Your task to perform on an android device: Open Yahoo.com Image 0: 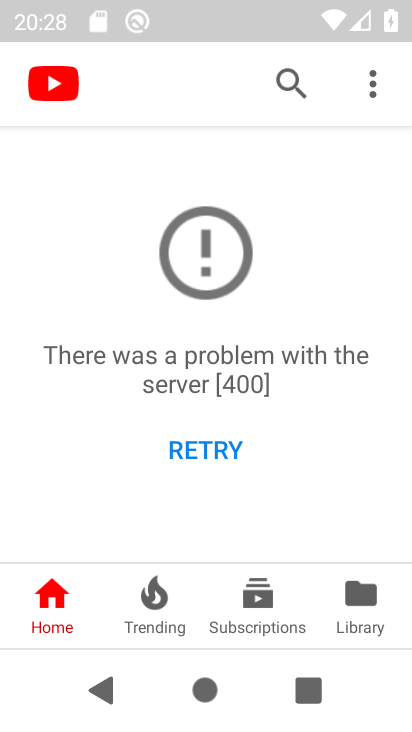
Step 0: press home button
Your task to perform on an android device: Open Yahoo.com Image 1: 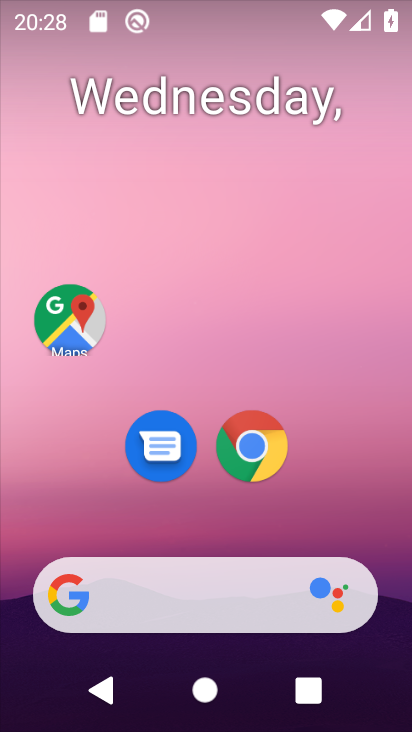
Step 1: click (259, 431)
Your task to perform on an android device: Open Yahoo.com Image 2: 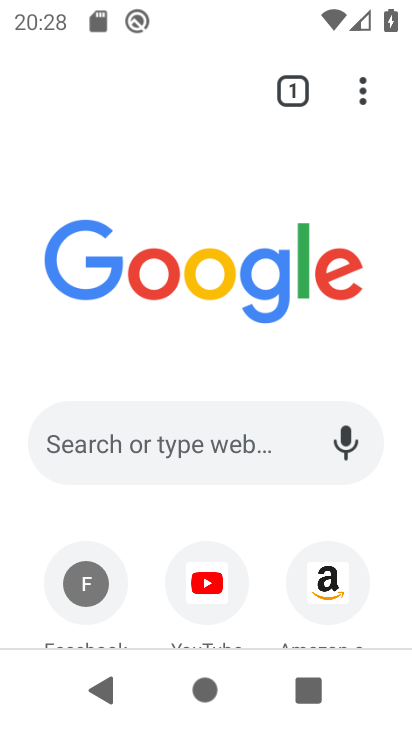
Step 2: drag from (246, 416) to (246, 223)
Your task to perform on an android device: Open Yahoo.com Image 3: 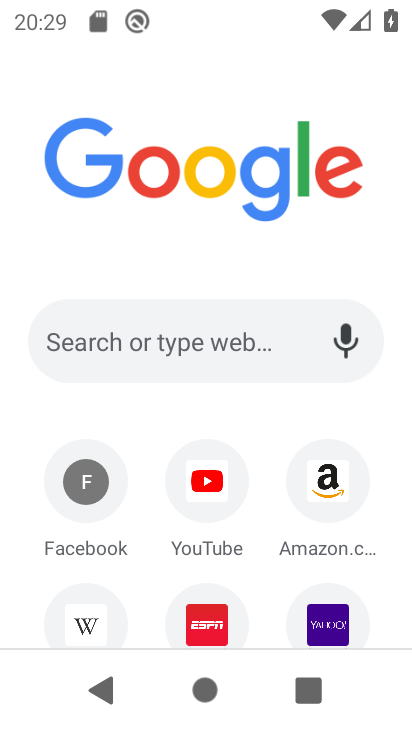
Step 3: click (315, 605)
Your task to perform on an android device: Open Yahoo.com Image 4: 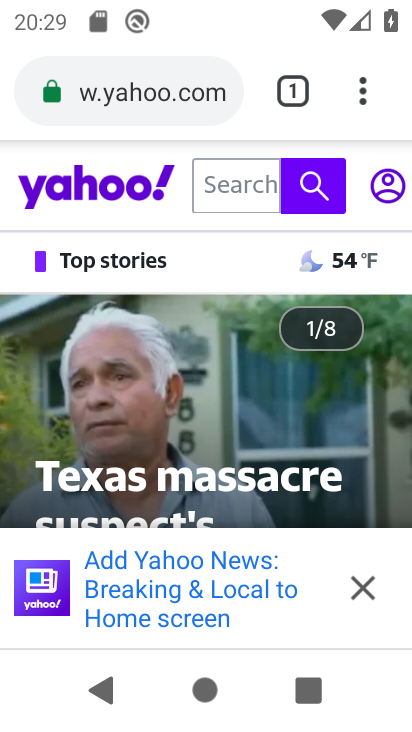
Step 4: task complete